Your task to perform on an android device: Go to privacy settings Image 0: 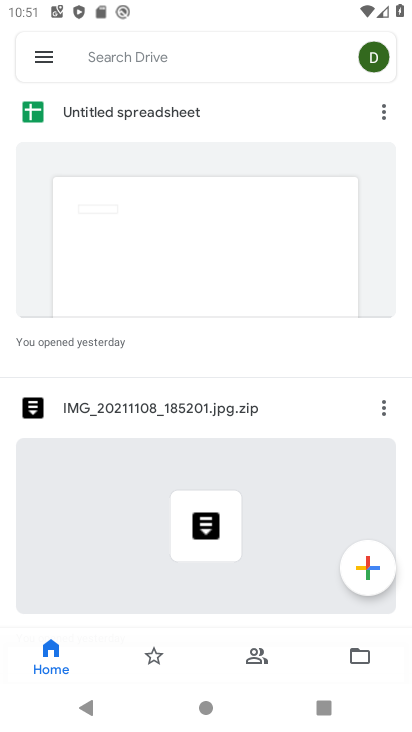
Step 0: press home button
Your task to perform on an android device: Go to privacy settings Image 1: 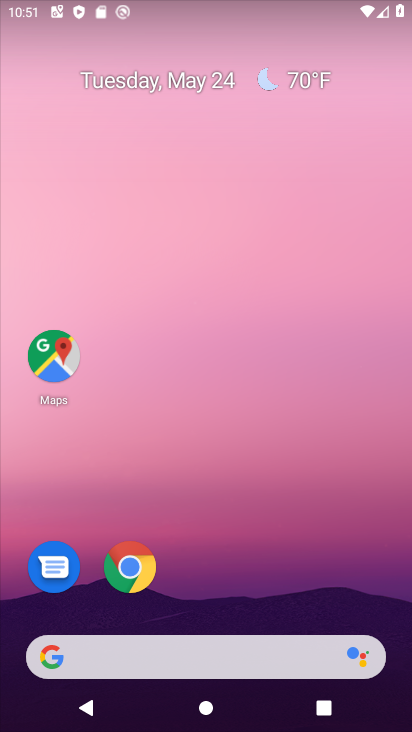
Step 1: drag from (394, 611) to (401, 141)
Your task to perform on an android device: Go to privacy settings Image 2: 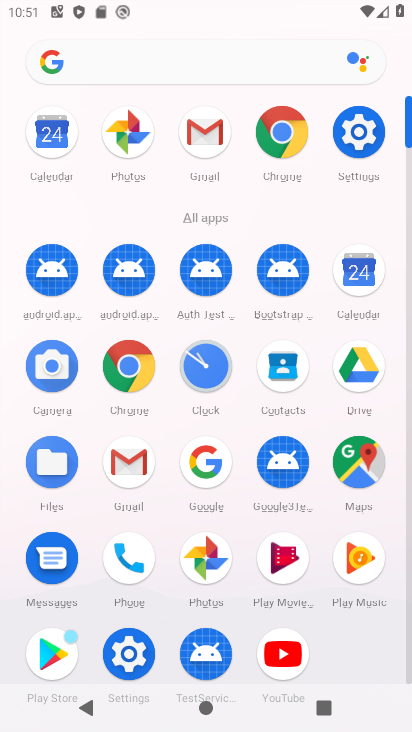
Step 2: click (286, 127)
Your task to perform on an android device: Go to privacy settings Image 3: 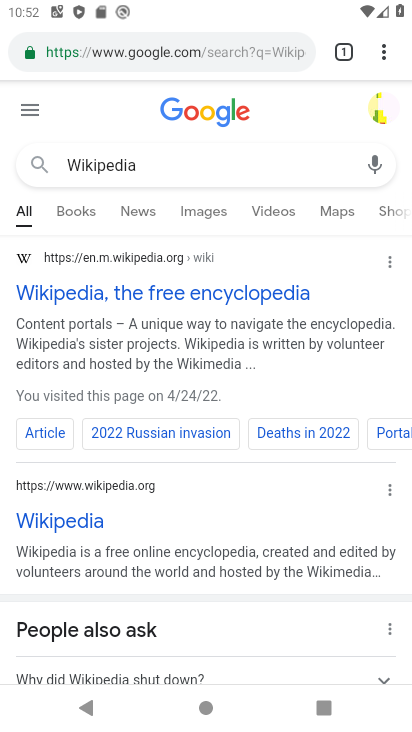
Step 3: click (384, 42)
Your task to perform on an android device: Go to privacy settings Image 4: 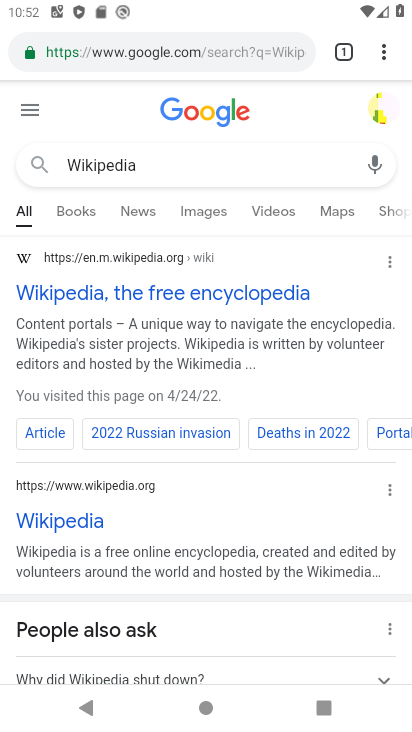
Step 4: click (382, 53)
Your task to perform on an android device: Go to privacy settings Image 5: 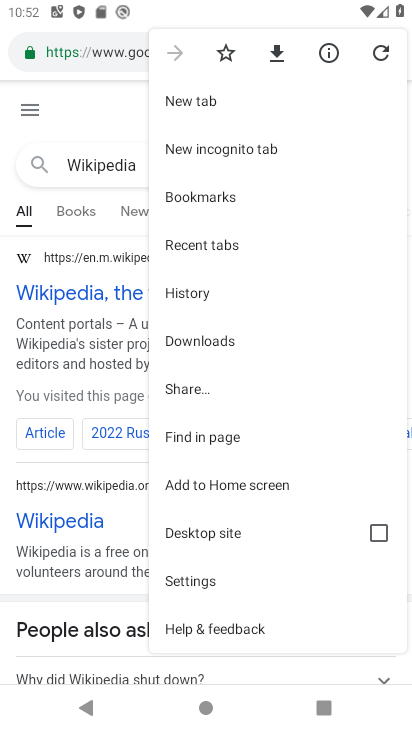
Step 5: click (196, 576)
Your task to perform on an android device: Go to privacy settings Image 6: 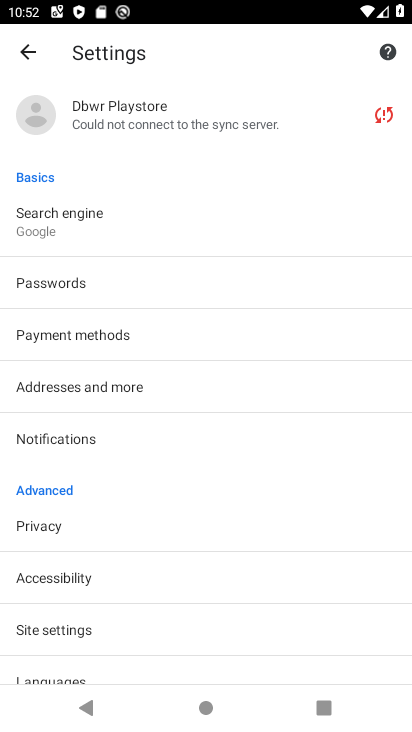
Step 6: click (34, 520)
Your task to perform on an android device: Go to privacy settings Image 7: 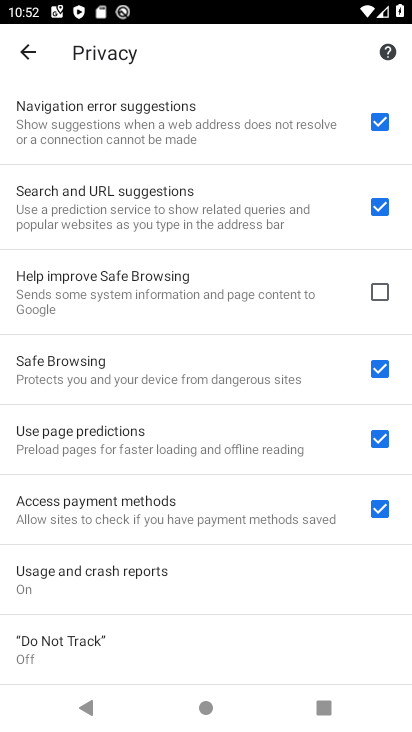
Step 7: task complete